Your task to perform on an android device: Open internet settings Image 0: 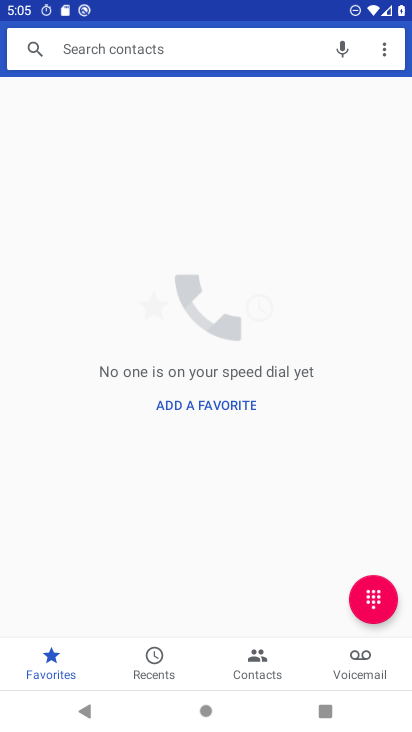
Step 0: press home button
Your task to perform on an android device: Open internet settings Image 1: 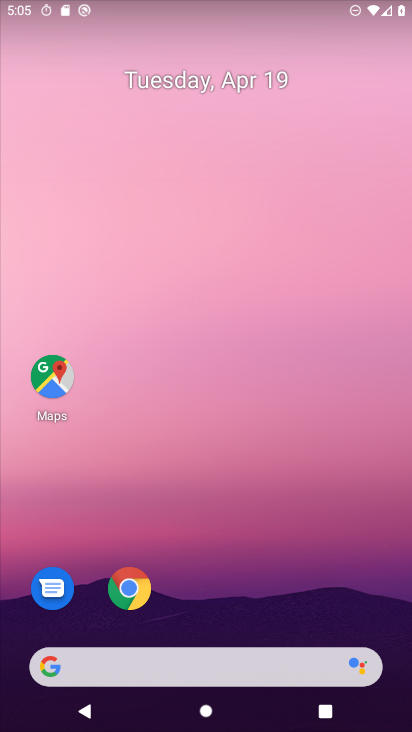
Step 1: drag from (231, 474) to (214, 82)
Your task to perform on an android device: Open internet settings Image 2: 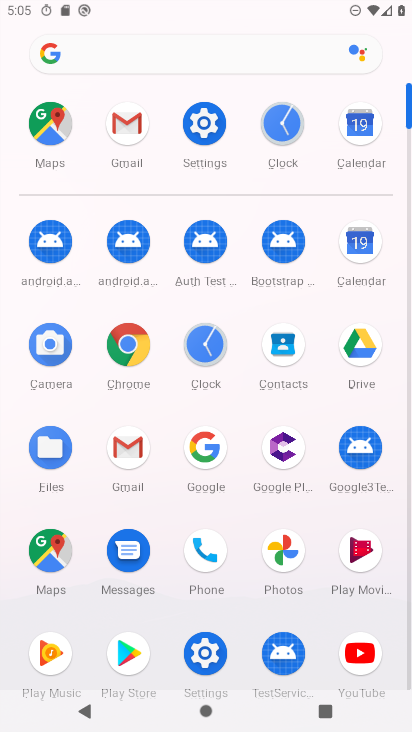
Step 2: click (208, 132)
Your task to perform on an android device: Open internet settings Image 3: 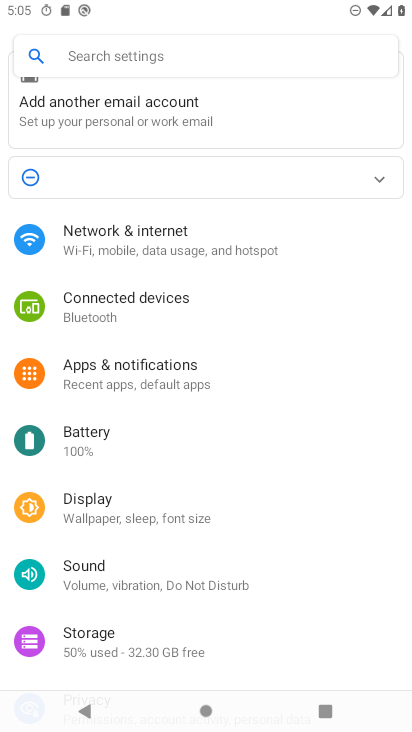
Step 3: click (173, 248)
Your task to perform on an android device: Open internet settings Image 4: 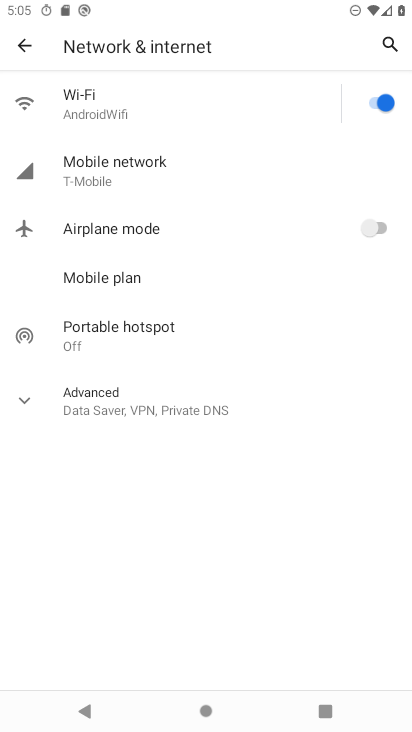
Step 4: task complete